Your task to perform on an android device: turn off location history Image 0: 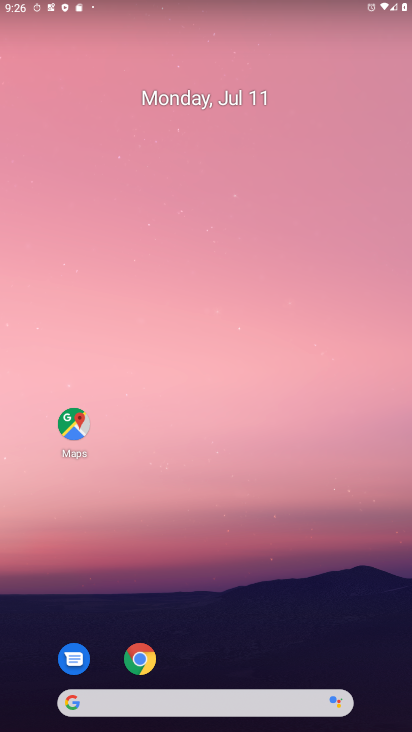
Step 0: drag from (359, 8) to (108, 6)
Your task to perform on an android device: turn off location history Image 1: 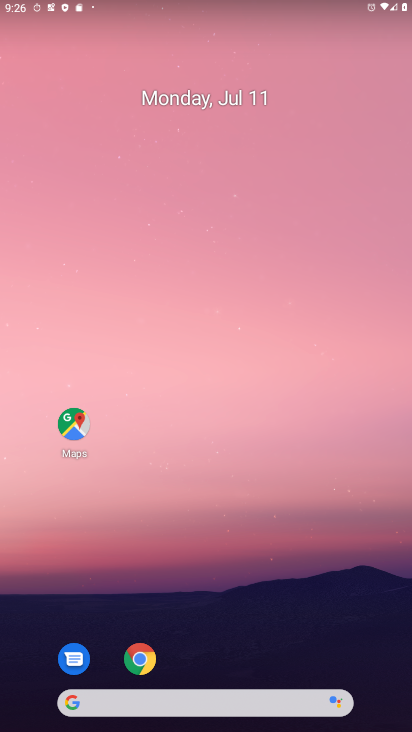
Step 1: drag from (189, 660) to (188, 26)
Your task to perform on an android device: turn off location history Image 2: 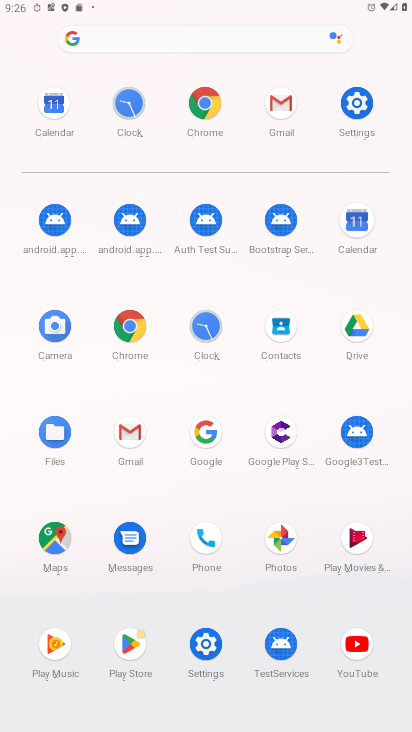
Step 2: click (207, 647)
Your task to perform on an android device: turn off location history Image 3: 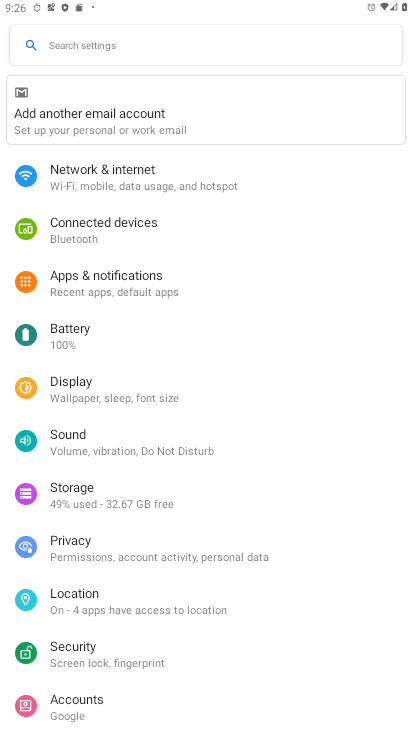
Step 3: click (136, 598)
Your task to perform on an android device: turn off location history Image 4: 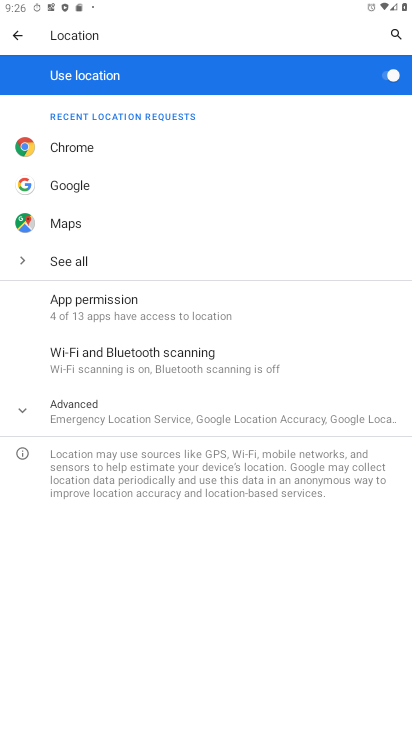
Step 4: click (185, 407)
Your task to perform on an android device: turn off location history Image 5: 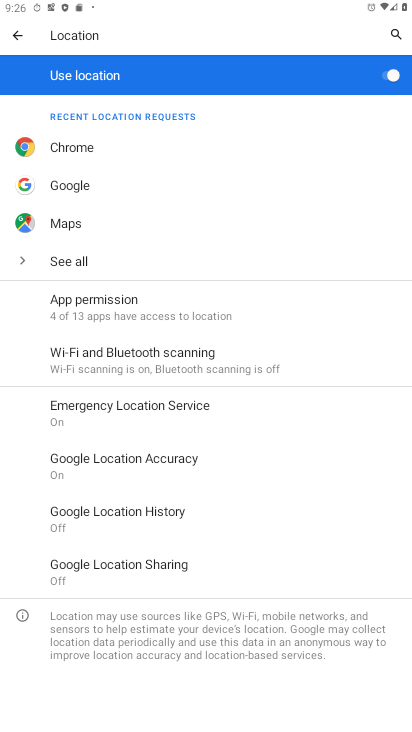
Step 5: click (140, 520)
Your task to perform on an android device: turn off location history Image 6: 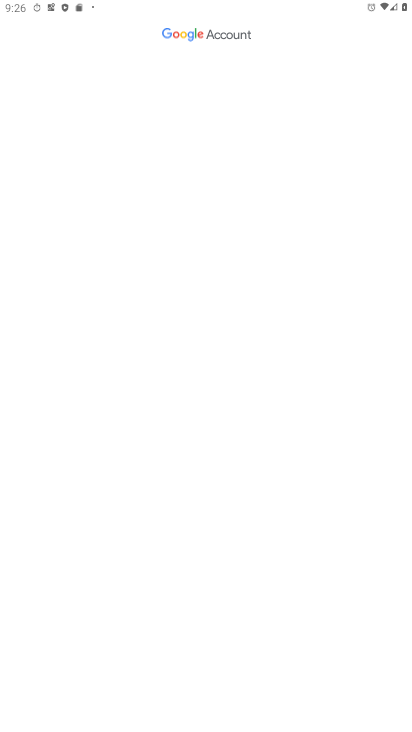
Step 6: task complete